Your task to perform on an android device: Go to settings Image 0: 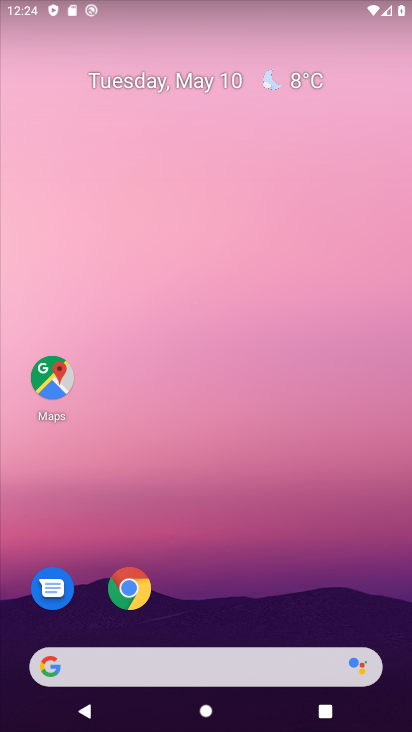
Step 0: drag from (202, 585) to (164, 73)
Your task to perform on an android device: Go to settings Image 1: 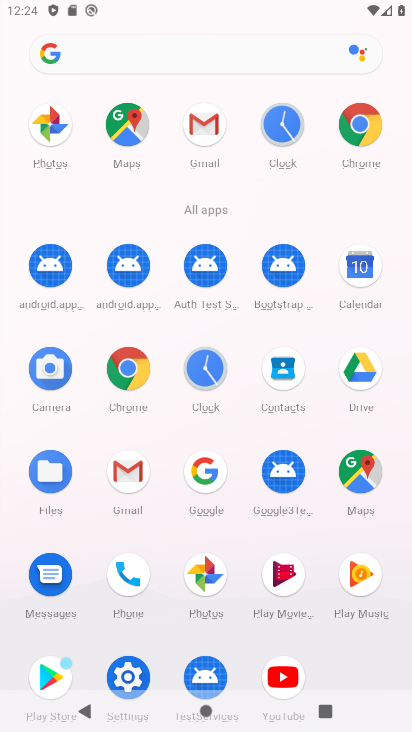
Step 1: click (133, 681)
Your task to perform on an android device: Go to settings Image 2: 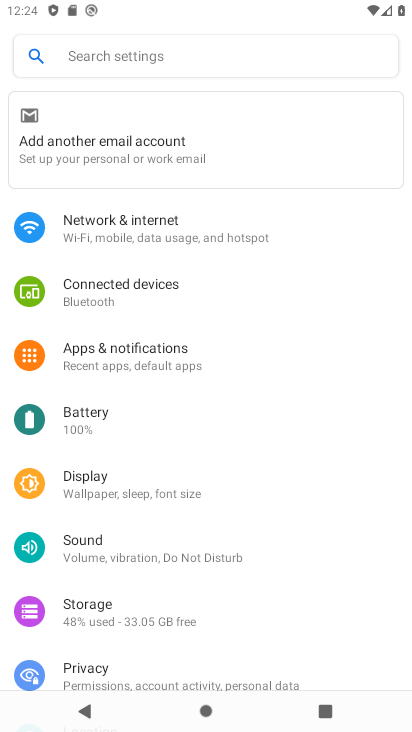
Step 2: task complete